Your task to perform on an android device: Open location settings Image 0: 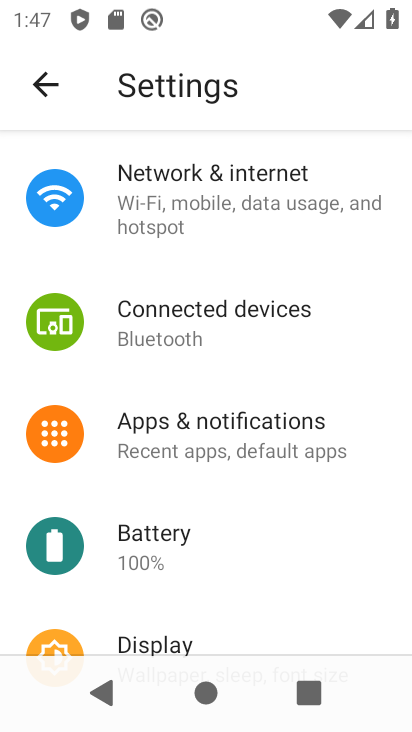
Step 0: drag from (274, 546) to (259, 137)
Your task to perform on an android device: Open location settings Image 1: 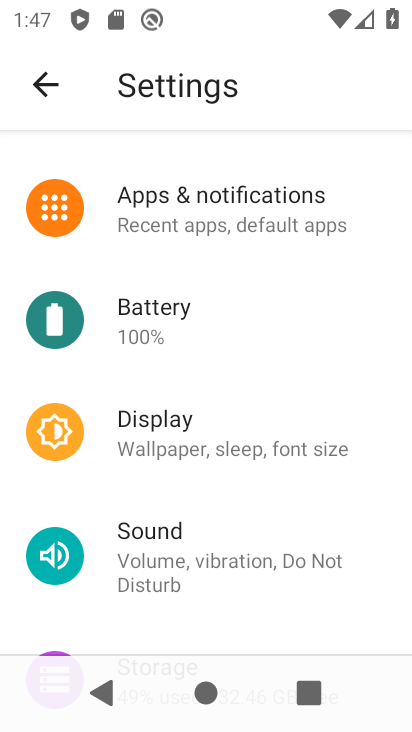
Step 1: drag from (255, 526) to (254, 209)
Your task to perform on an android device: Open location settings Image 2: 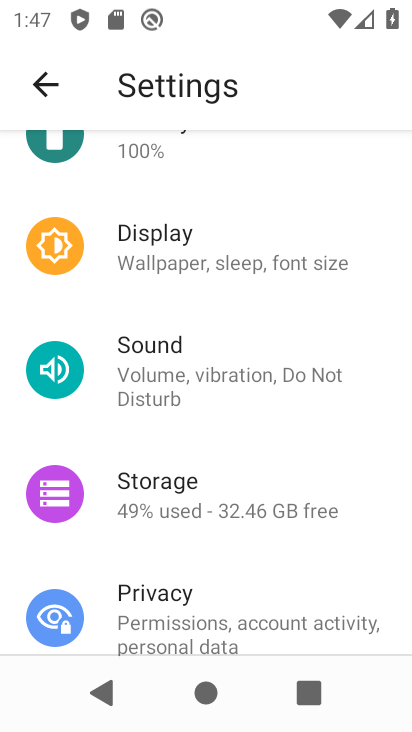
Step 2: drag from (276, 509) to (278, 212)
Your task to perform on an android device: Open location settings Image 3: 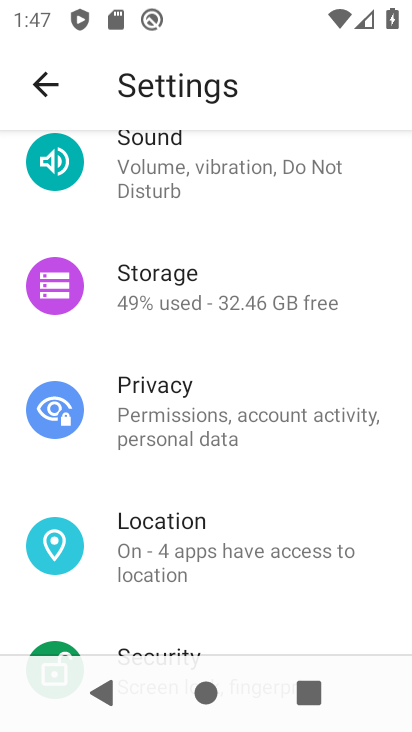
Step 3: click (222, 541)
Your task to perform on an android device: Open location settings Image 4: 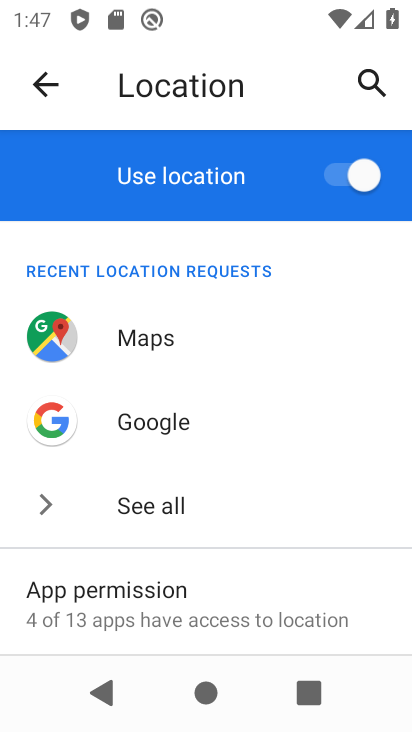
Step 4: drag from (232, 534) to (250, 245)
Your task to perform on an android device: Open location settings Image 5: 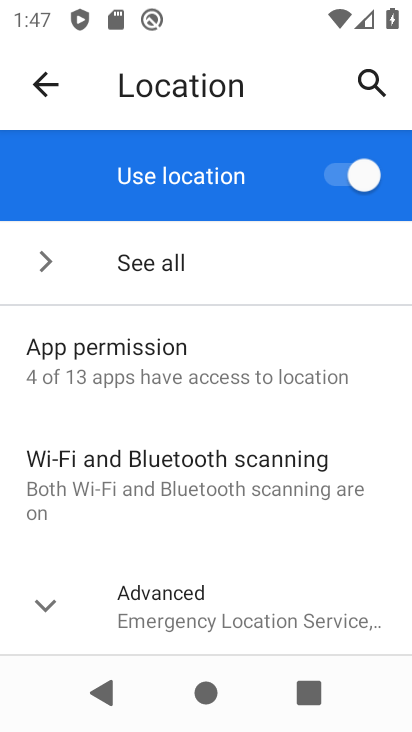
Step 5: drag from (245, 534) to (247, 292)
Your task to perform on an android device: Open location settings Image 6: 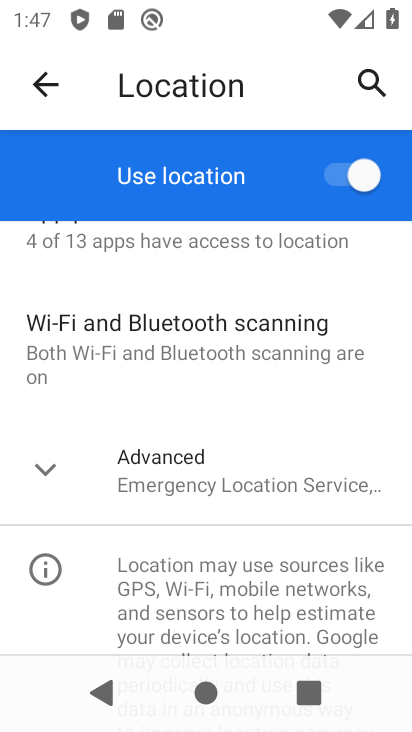
Step 6: drag from (223, 501) to (228, 376)
Your task to perform on an android device: Open location settings Image 7: 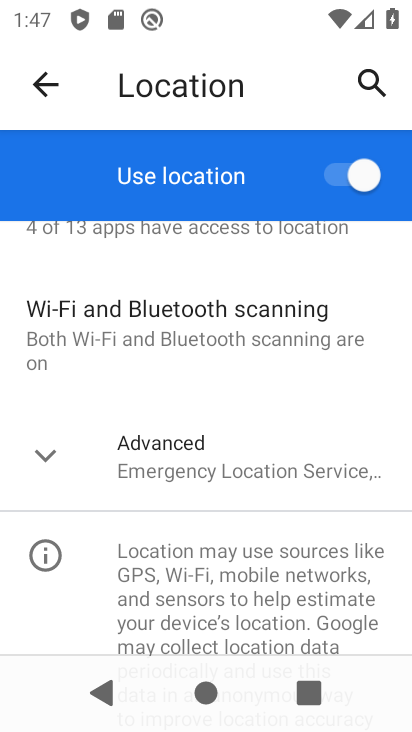
Step 7: drag from (239, 360) to (236, 571)
Your task to perform on an android device: Open location settings Image 8: 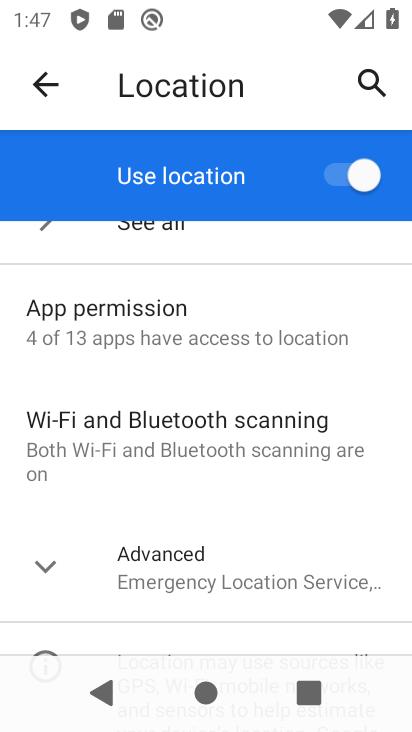
Step 8: drag from (287, 307) to (244, 514)
Your task to perform on an android device: Open location settings Image 9: 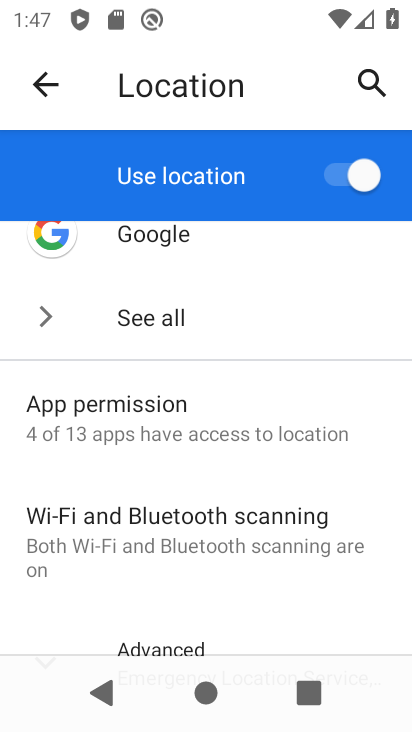
Step 9: drag from (249, 504) to (249, 243)
Your task to perform on an android device: Open location settings Image 10: 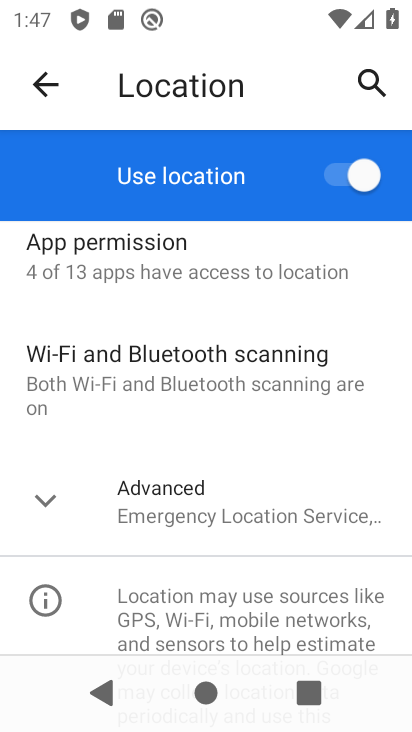
Step 10: drag from (214, 498) to (226, 253)
Your task to perform on an android device: Open location settings Image 11: 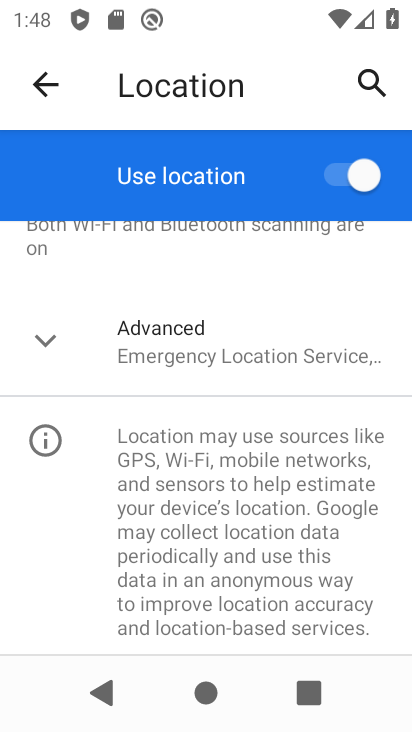
Step 11: click (43, 339)
Your task to perform on an android device: Open location settings Image 12: 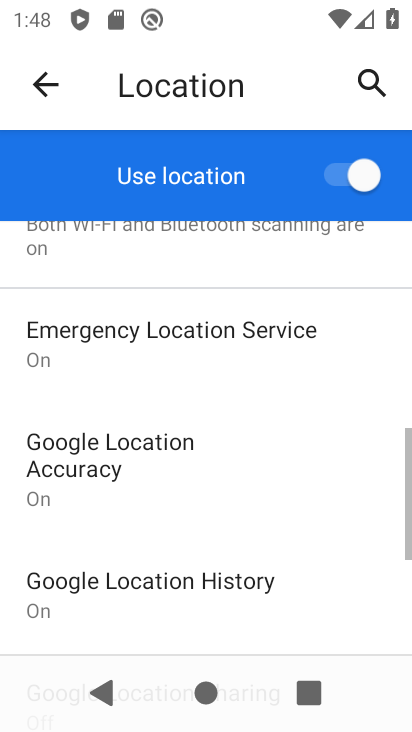
Step 12: task complete